Your task to perform on an android device: Check the weather Image 0: 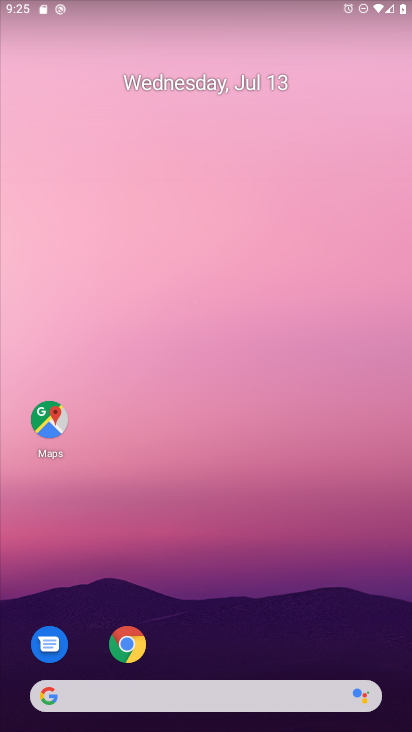
Step 0: press home button
Your task to perform on an android device: Check the weather Image 1: 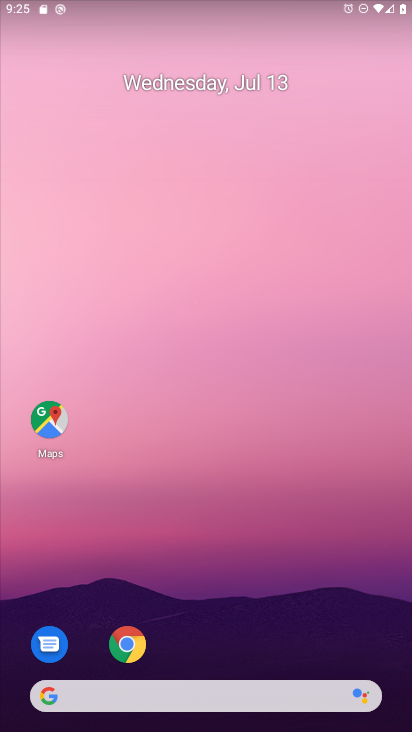
Step 1: click (102, 693)
Your task to perform on an android device: Check the weather Image 2: 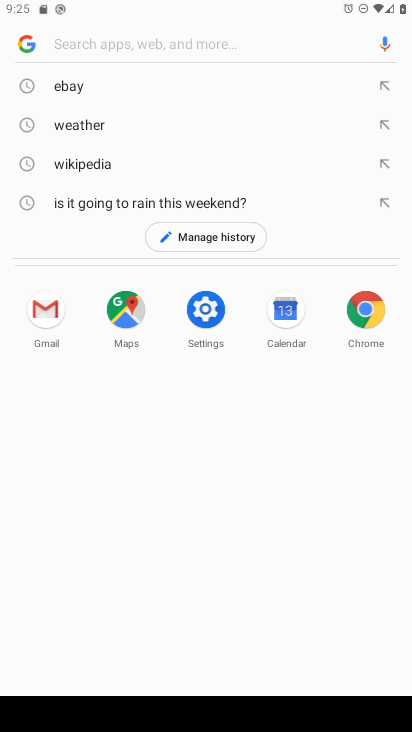
Step 2: click (100, 128)
Your task to perform on an android device: Check the weather Image 3: 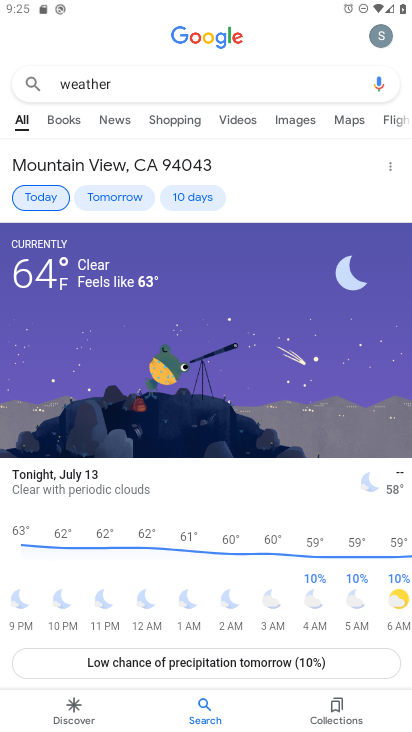
Step 3: task complete